Your task to perform on an android device: When is my next appointment? Image 0: 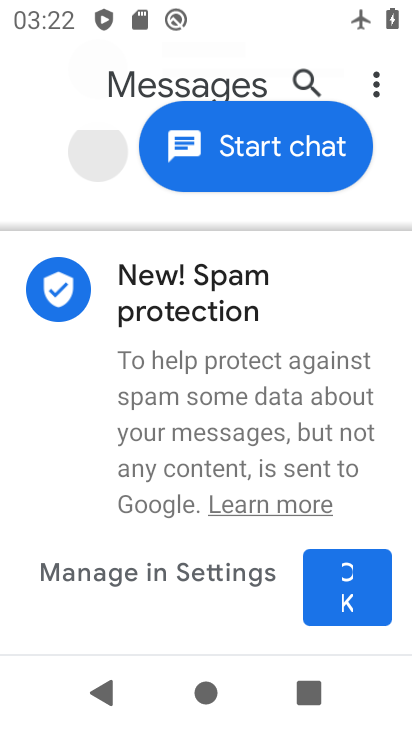
Step 0: press home button
Your task to perform on an android device: When is my next appointment? Image 1: 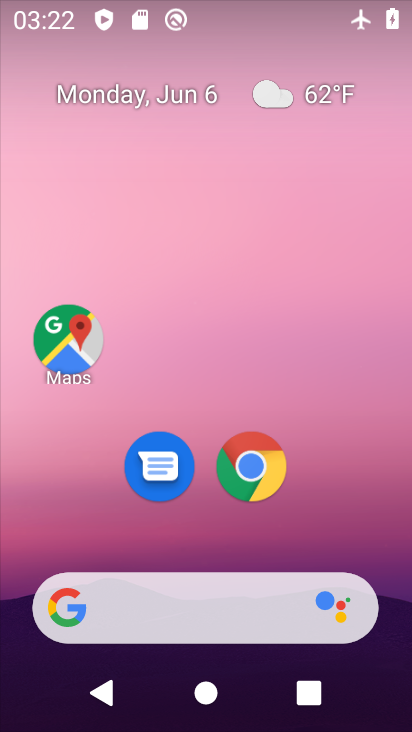
Step 1: drag from (375, 415) to (330, 39)
Your task to perform on an android device: When is my next appointment? Image 2: 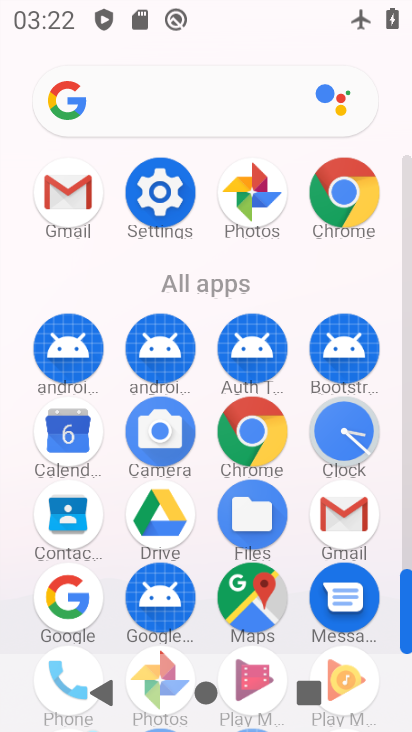
Step 2: click (63, 457)
Your task to perform on an android device: When is my next appointment? Image 3: 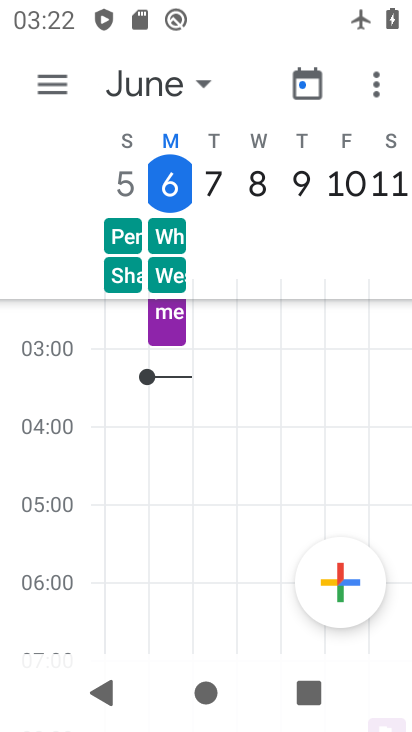
Step 3: click (54, 78)
Your task to perform on an android device: When is my next appointment? Image 4: 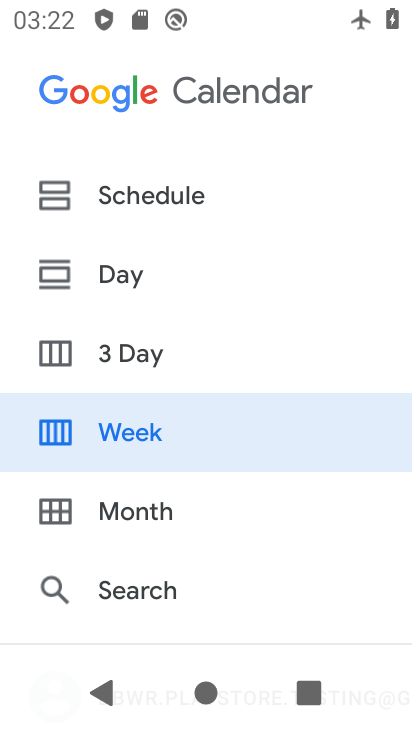
Step 4: click (125, 343)
Your task to perform on an android device: When is my next appointment? Image 5: 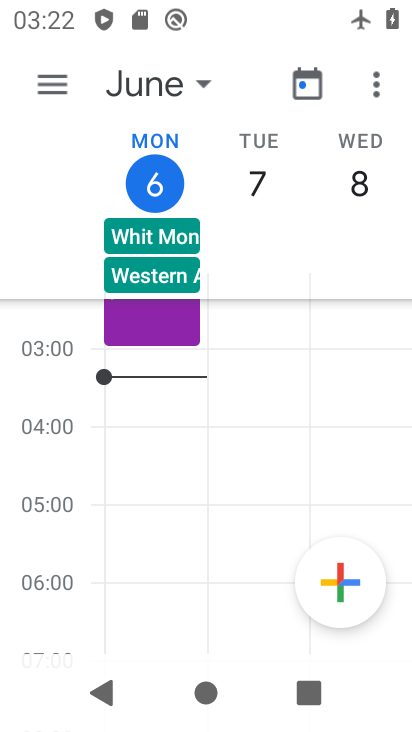
Step 5: task complete